Your task to perform on an android device: set the stopwatch Image 0: 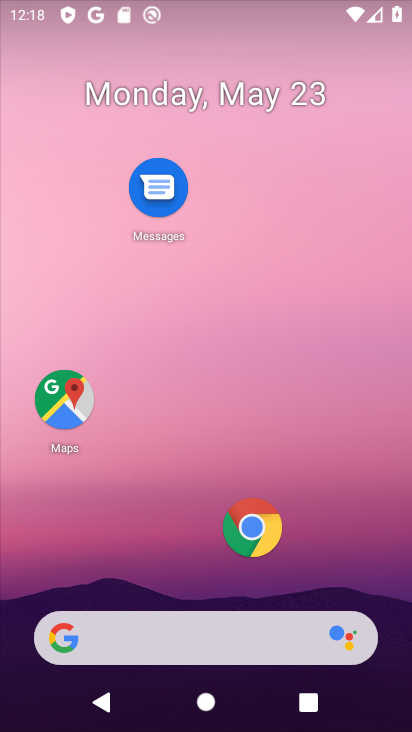
Step 0: drag from (266, 674) to (191, 129)
Your task to perform on an android device: set the stopwatch Image 1: 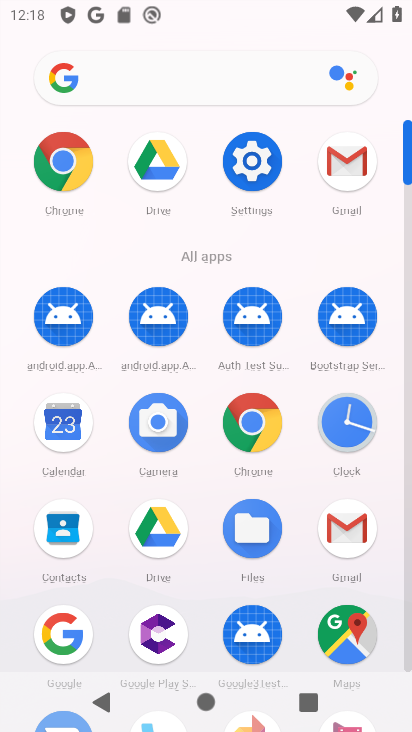
Step 1: click (350, 433)
Your task to perform on an android device: set the stopwatch Image 2: 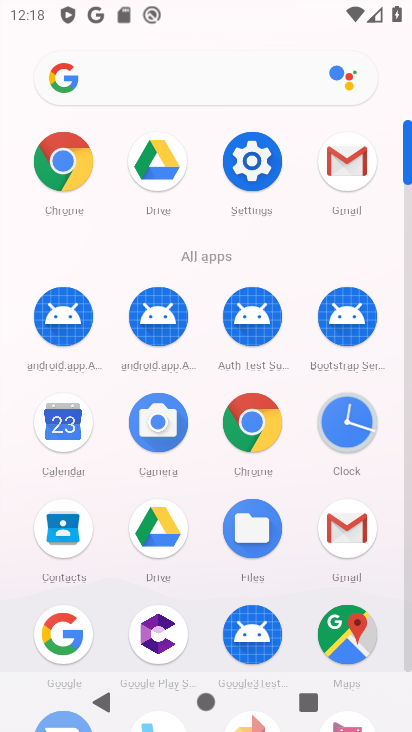
Step 2: click (350, 433)
Your task to perform on an android device: set the stopwatch Image 3: 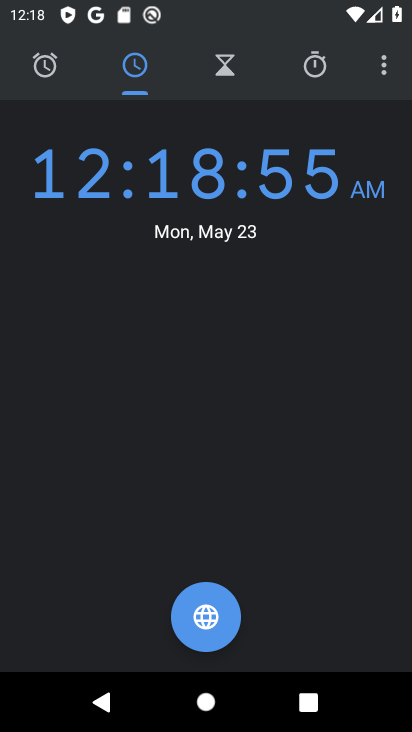
Step 3: click (350, 433)
Your task to perform on an android device: set the stopwatch Image 4: 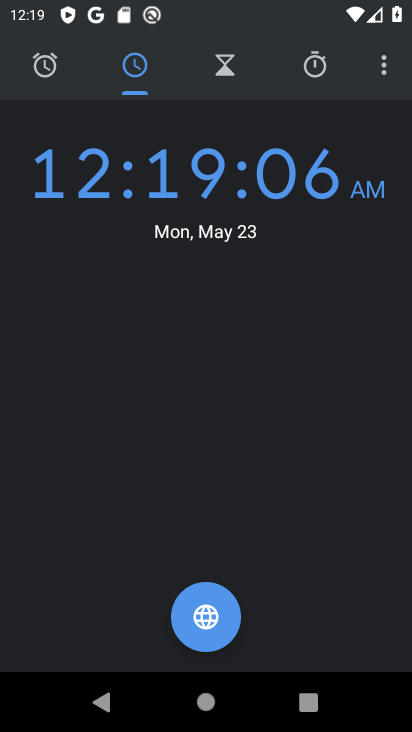
Step 4: drag from (378, 71) to (331, 149)
Your task to perform on an android device: set the stopwatch Image 5: 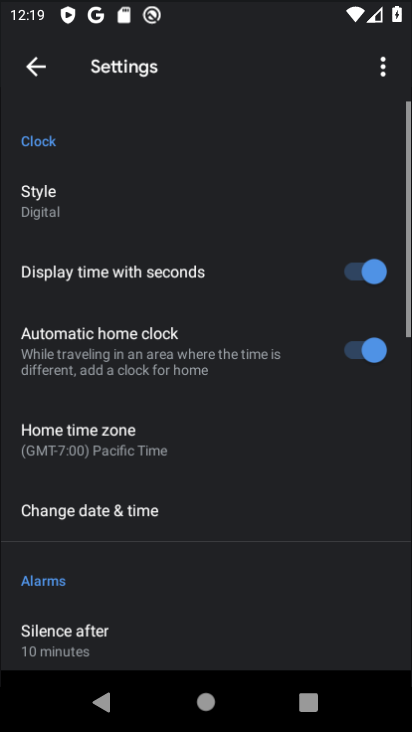
Step 5: click (381, 64)
Your task to perform on an android device: set the stopwatch Image 6: 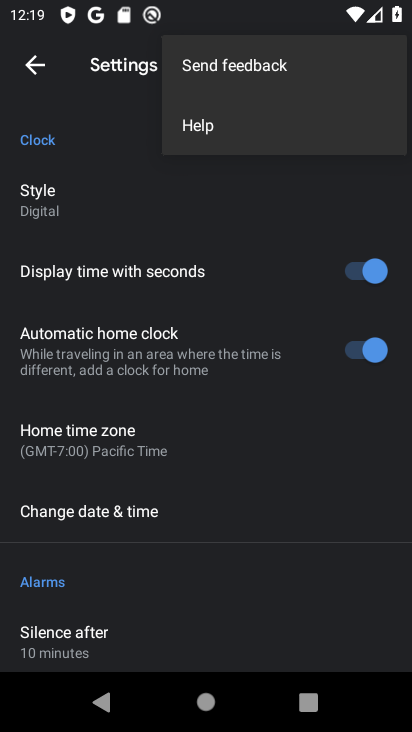
Step 6: click (21, 73)
Your task to perform on an android device: set the stopwatch Image 7: 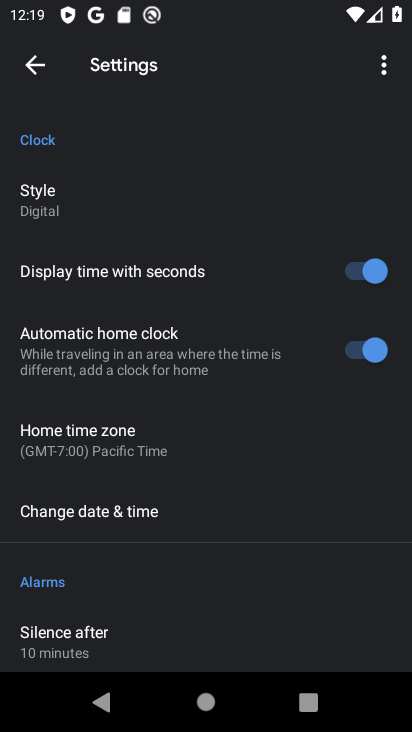
Step 7: click (36, 67)
Your task to perform on an android device: set the stopwatch Image 8: 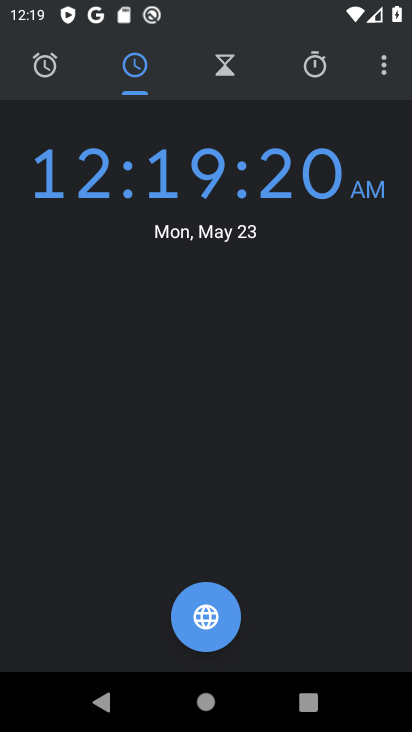
Step 8: click (390, 54)
Your task to perform on an android device: set the stopwatch Image 9: 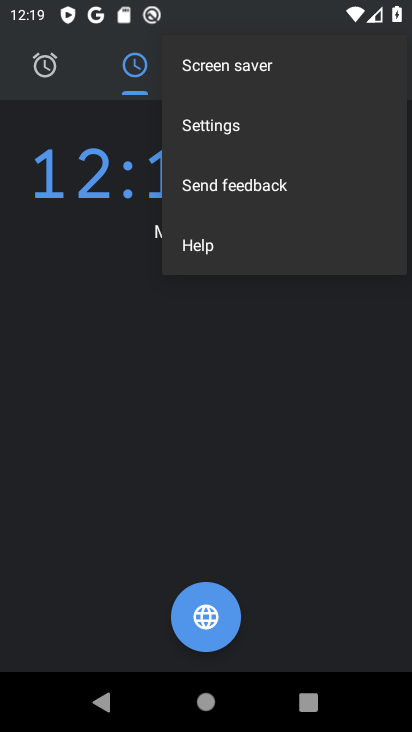
Step 9: click (202, 117)
Your task to perform on an android device: set the stopwatch Image 10: 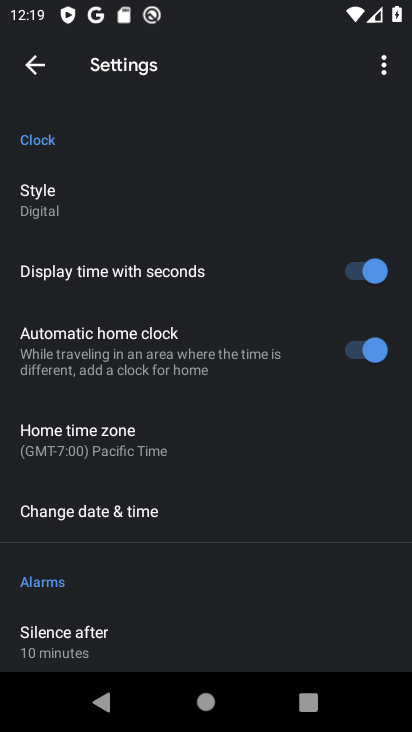
Step 10: click (28, 74)
Your task to perform on an android device: set the stopwatch Image 11: 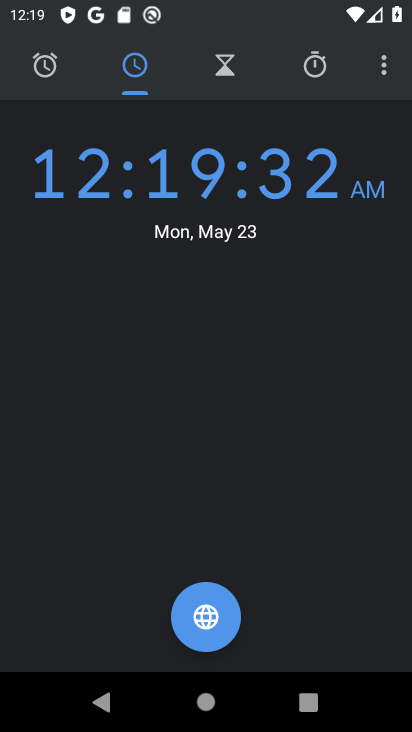
Step 11: click (317, 75)
Your task to perform on an android device: set the stopwatch Image 12: 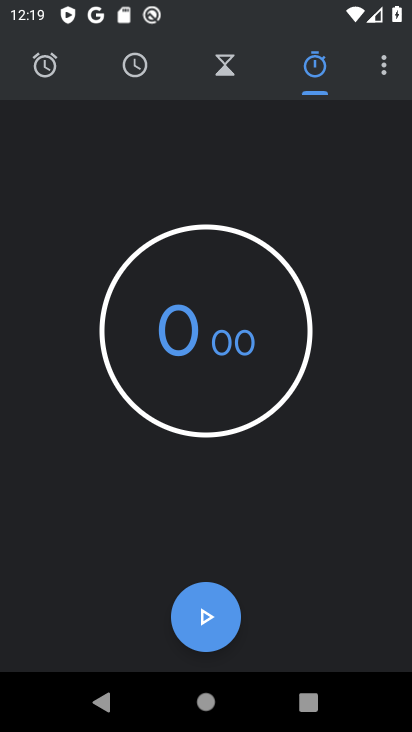
Step 12: click (202, 609)
Your task to perform on an android device: set the stopwatch Image 13: 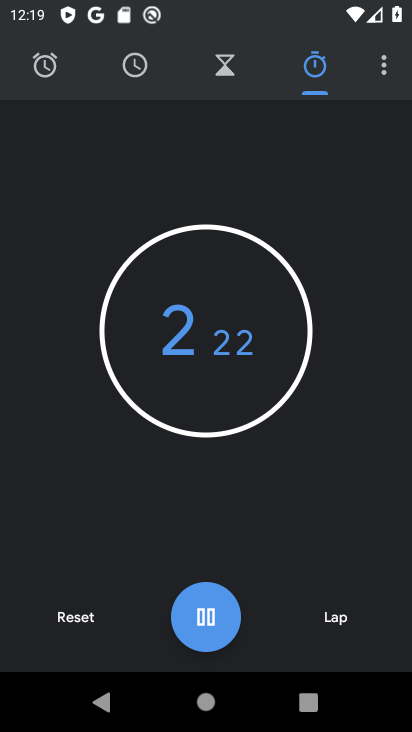
Step 13: click (206, 609)
Your task to perform on an android device: set the stopwatch Image 14: 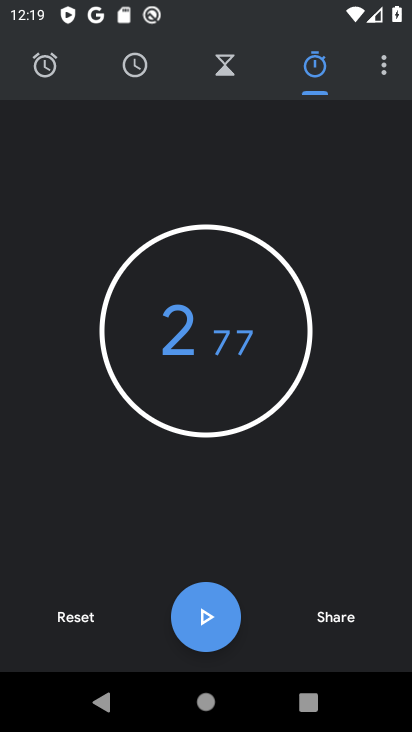
Step 14: task complete